Your task to perform on an android device: turn on improve location accuracy Image 0: 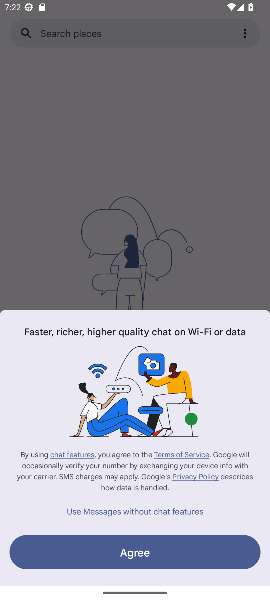
Step 0: press home button
Your task to perform on an android device: turn on improve location accuracy Image 1: 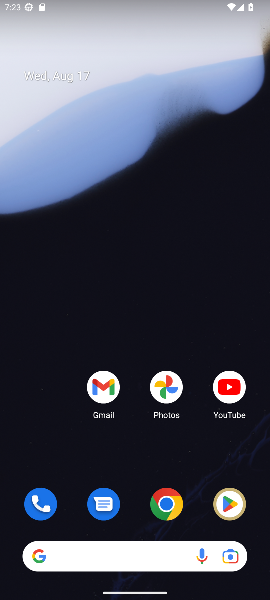
Step 1: drag from (146, 465) to (163, 120)
Your task to perform on an android device: turn on improve location accuracy Image 2: 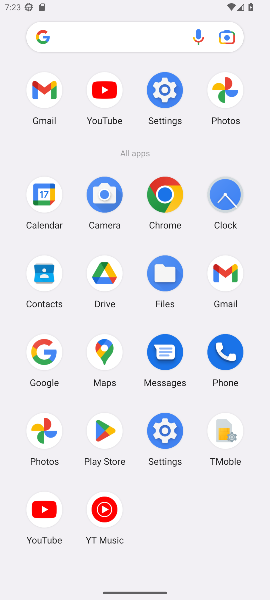
Step 2: click (165, 101)
Your task to perform on an android device: turn on improve location accuracy Image 3: 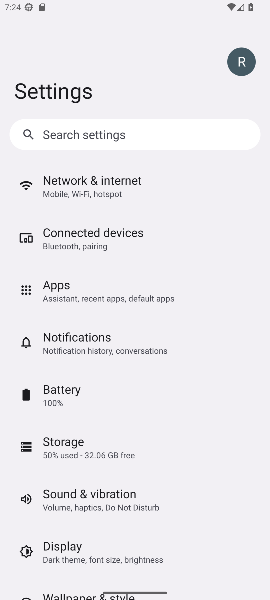
Step 3: drag from (116, 493) to (134, 325)
Your task to perform on an android device: turn on improve location accuracy Image 4: 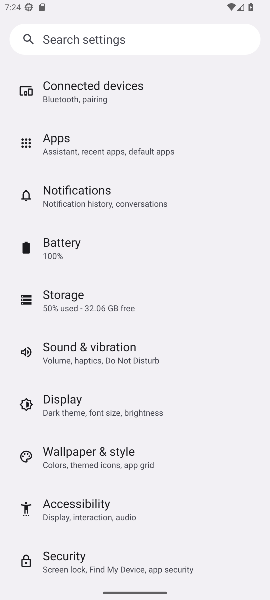
Step 4: drag from (108, 168) to (161, 440)
Your task to perform on an android device: turn on improve location accuracy Image 5: 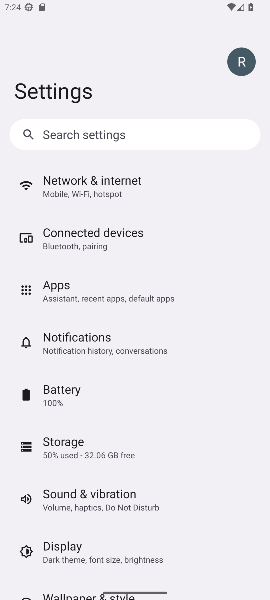
Step 5: drag from (118, 471) to (149, 132)
Your task to perform on an android device: turn on improve location accuracy Image 6: 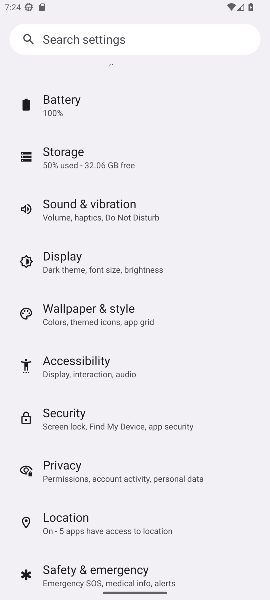
Step 6: click (97, 528)
Your task to perform on an android device: turn on improve location accuracy Image 7: 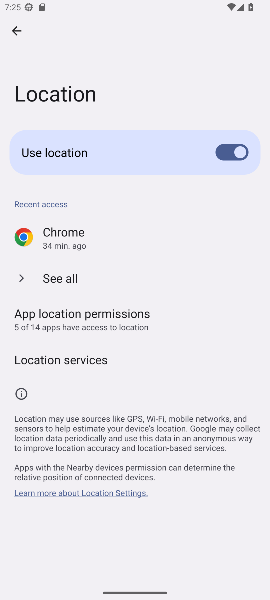
Step 7: click (106, 354)
Your task to perform on an android device: turn on improve location accuracy Image 8: 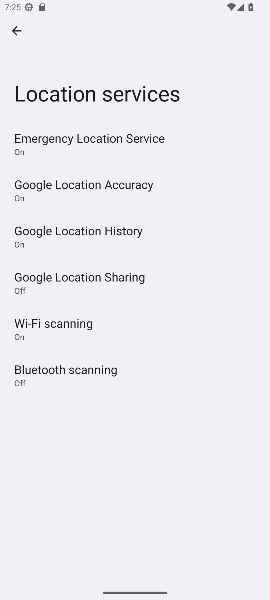
Step 8: click (148, 195)
Your task to perform on an android device: turn on improve location accuracy Image 9: 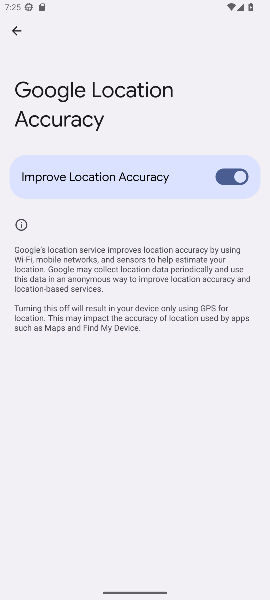
Step 9: task complete